Your task to perform on an android device: Go to wifi settings Image 0: 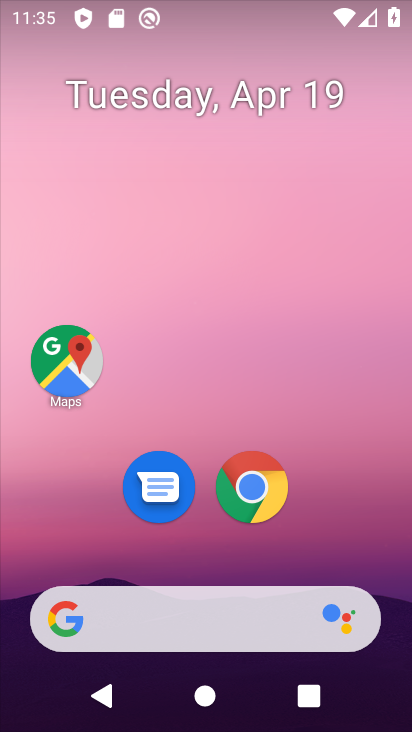
Step 0: drag from (375, 407) to (370, 178)
Your task to perform on an android device: Go to wifi settings Image 1: 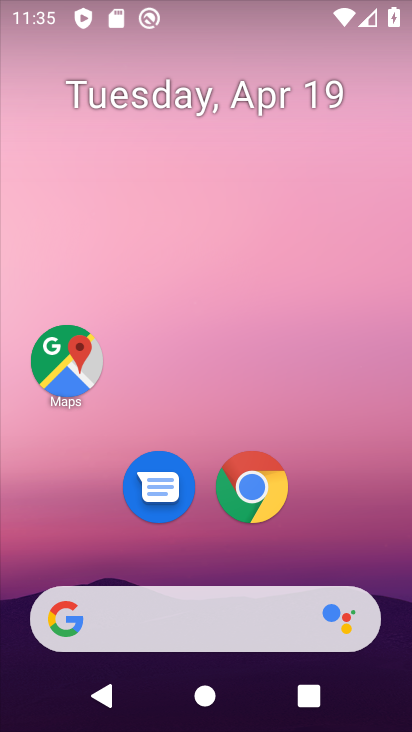
Step 1: drag from (313, 522) to (329, 88)
Your task to perform on an android device: Go to wifi settings Image 2: 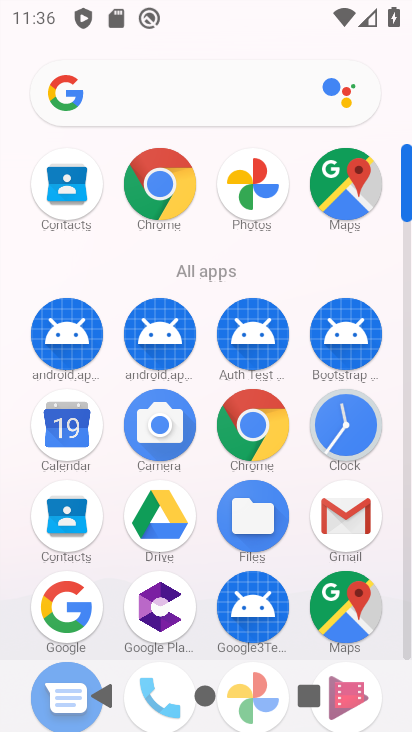
Step 2: click (405, 649)
Your task to perform on an android device: Go to wifi settings Image 3: 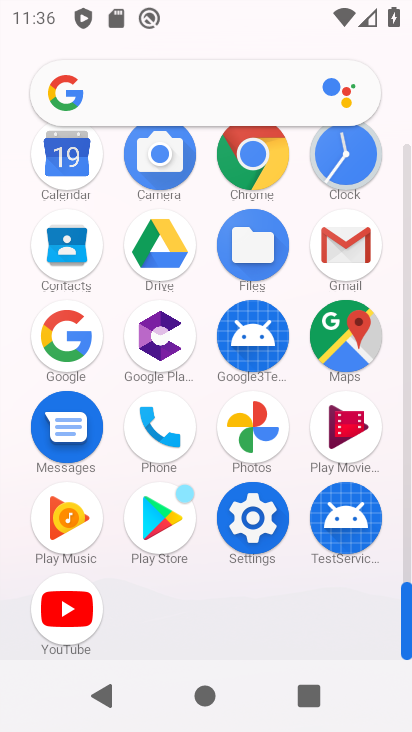
Step 3: click (239, 539)
Your task to perform on an android device: Go to wifi settings Image 4: 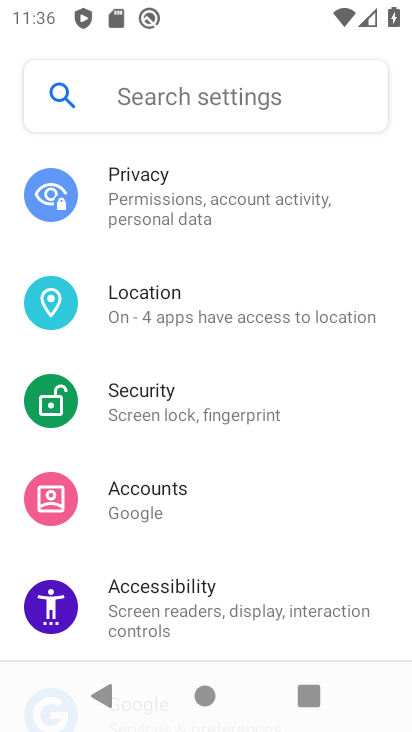
Step 4: drag from (196, 479) to (192, 729)
Your task to perform on an android device: Go to wifi settings Image 5: 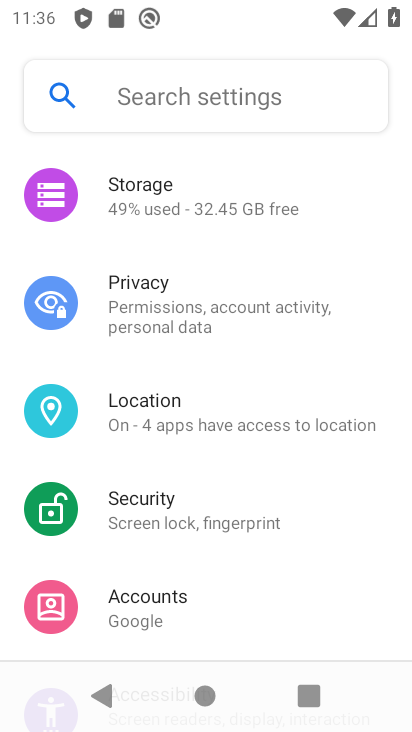
Step 5: drag from (248, 464) to (262, 712)
Your task to perform on an android device: Go to wifi settings Image 6: 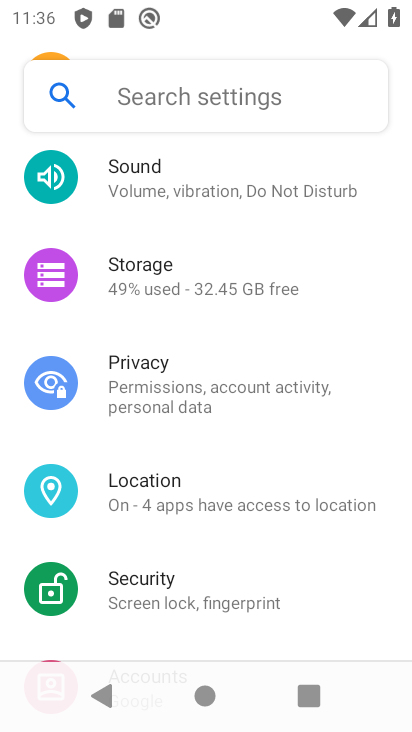
Step 6: drag from (257, 229) to (308, 638)
Your task to perform on an android device: Go to wifi settings Image 7: 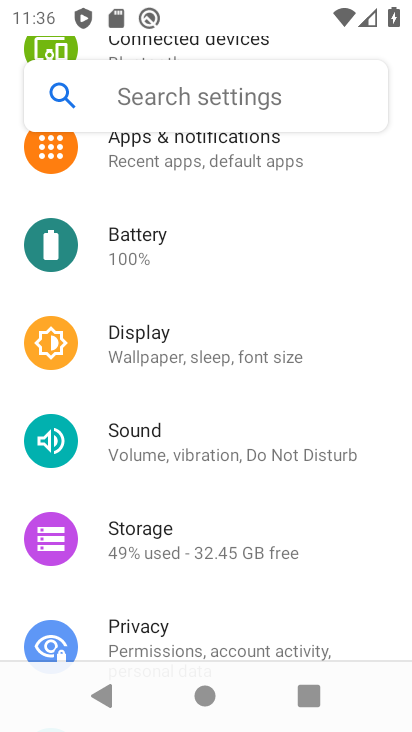
Step 7: drag from (234, 227) to (196, 726)
Your task to perform on an android device: Go to wifi settings Image 8: 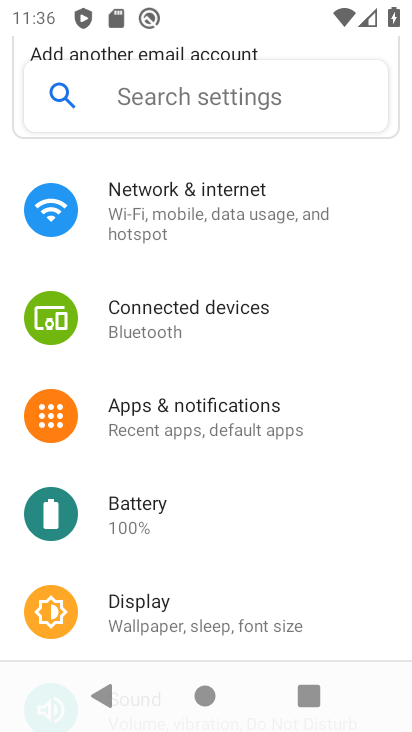
Step 8: click (259, 216)
Your task to perform on an android device: Go to wifi settings Image 9: 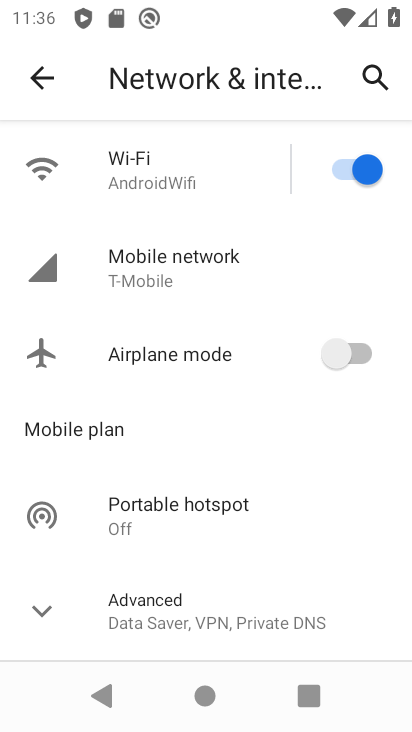
Step 9: click (202, 152)
Your task to perform on an android device: Go to wifi settings Image 10: 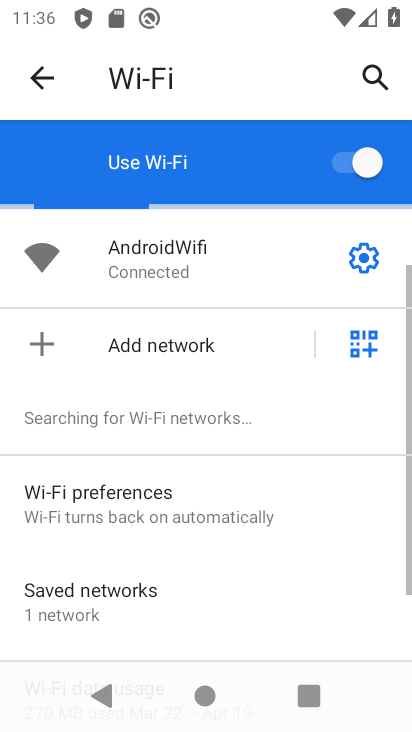
Step 10: task complete